Your task to perform on an android device: Go to display settings Image 0: 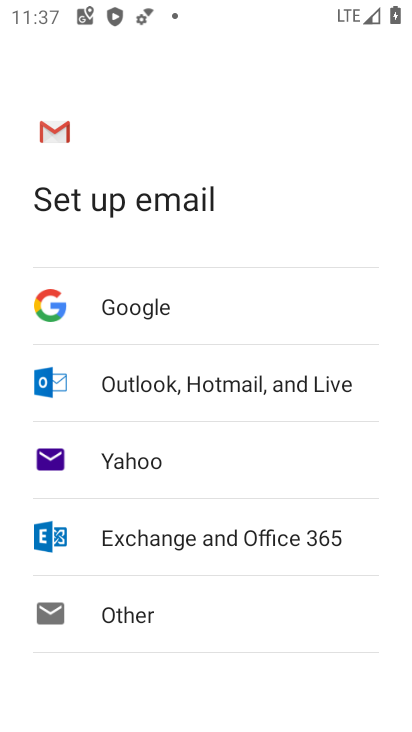
Step 0: press home button
Your task to perform on an android device: Go to display settings Image 1: 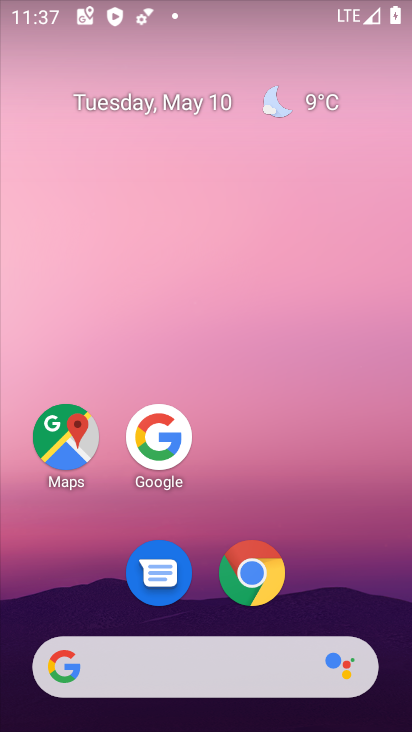
Step 1: drag from (199, 441) to (243, 92)
Your task to perform on an android device: Go to display settings Image 2: 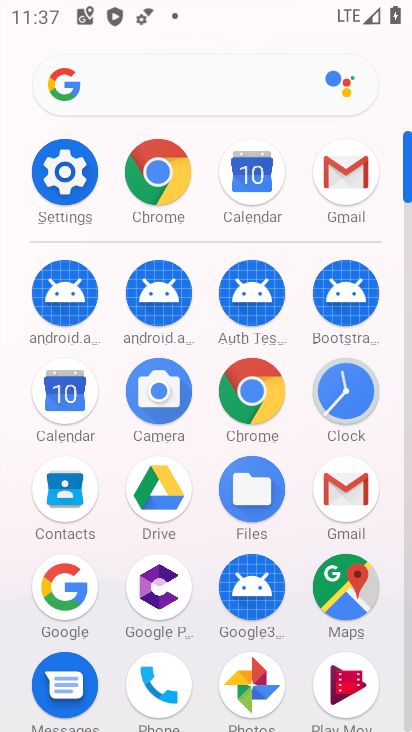
Step 2: click (61, 190)
Your task to perform on an android device: Go to display settings Image 3: 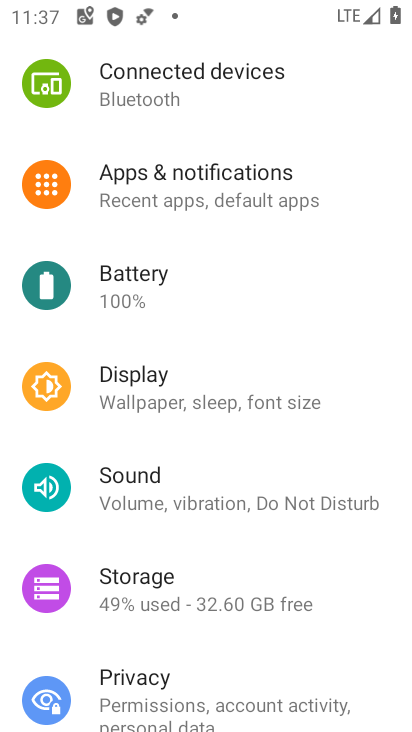
Step 3: click (127, 398)
Your task to perform on an android device: Go to display settings Image 4: 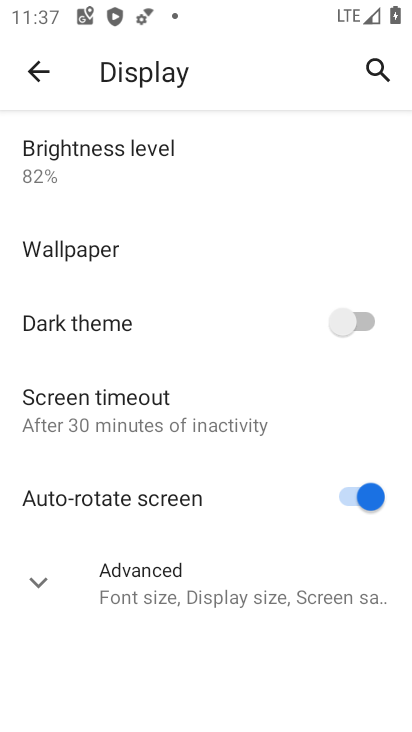
Step 4: click (50, 569)
Your task to perform on an android device: Go to display settings Image 5: 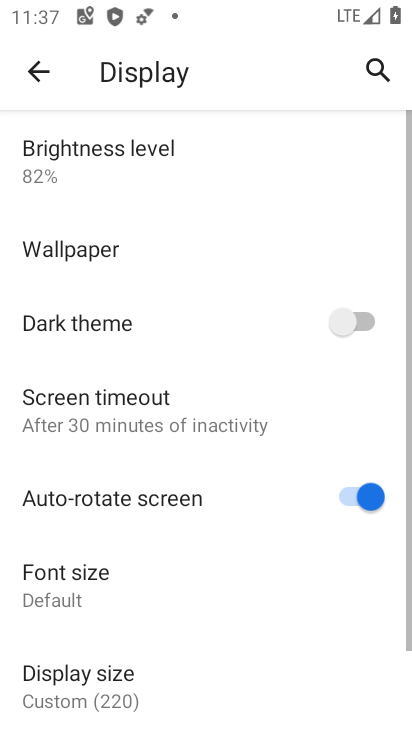
Step 5: task complete